Your task to perform on an android device: Search for hotels in Sydney Image 0: 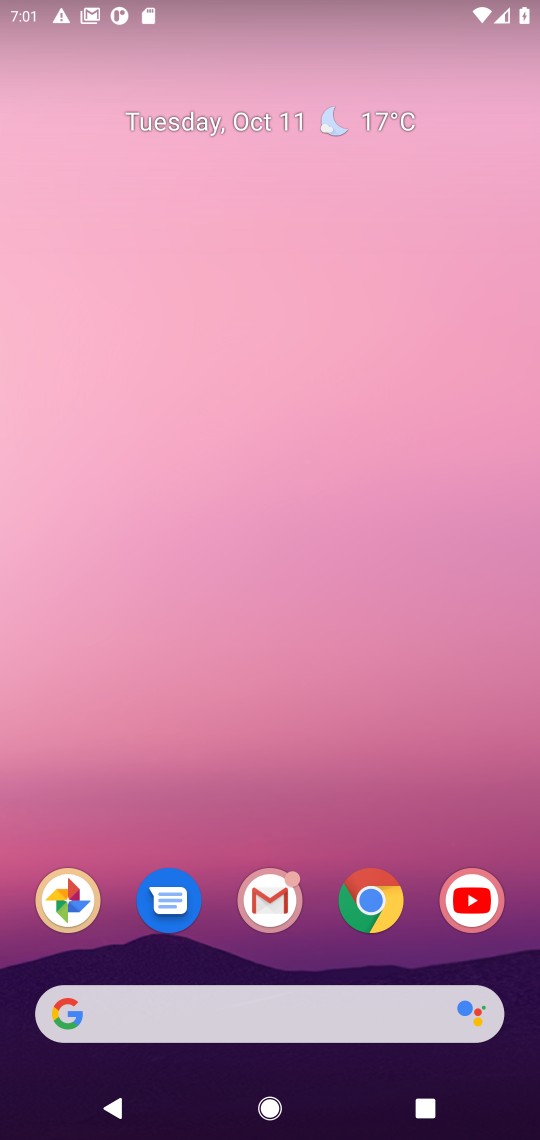
Step 0: click (362, 910)
Your task to perform on an android device: Search for hotels in Sydney Image 1: 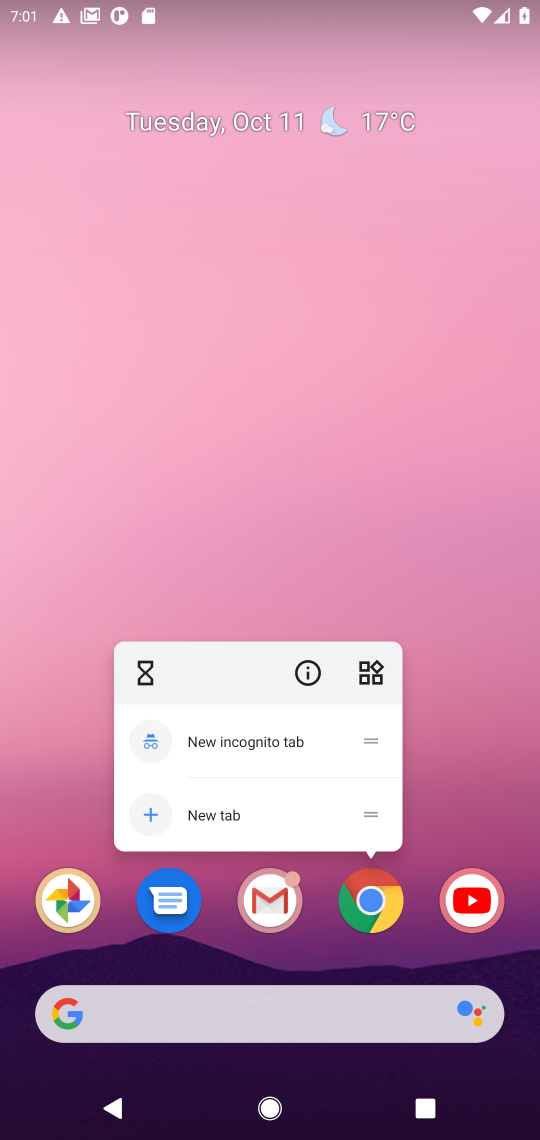
Step 1: click (374, 894)
Your task to perform on an android device: Search for hotels in Sydney Image 2: 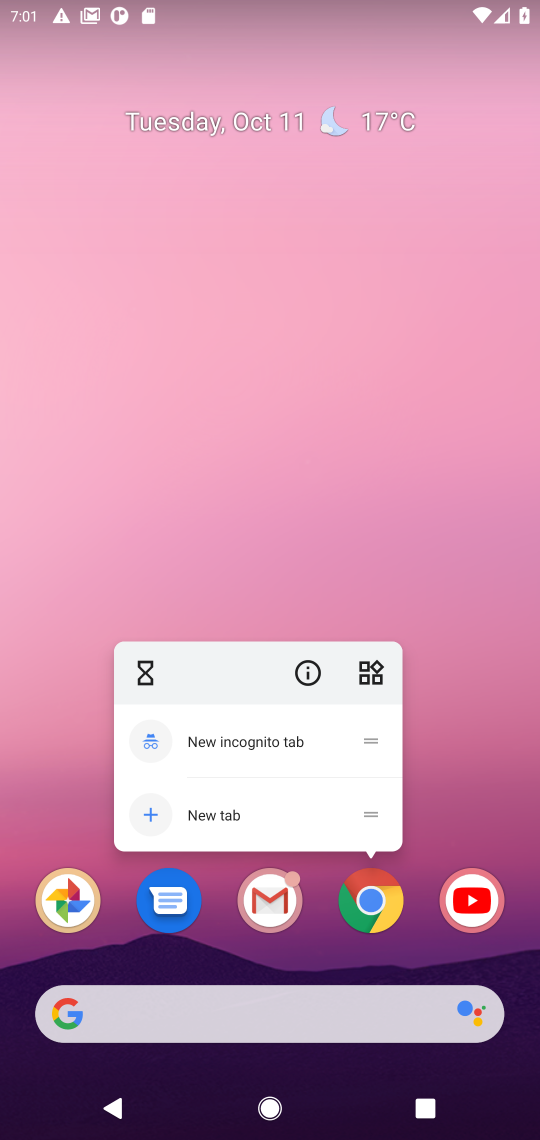
Step 2: click (370, 905)
Your task to perform on an android device: Search for hotels in Sydney Image 3: 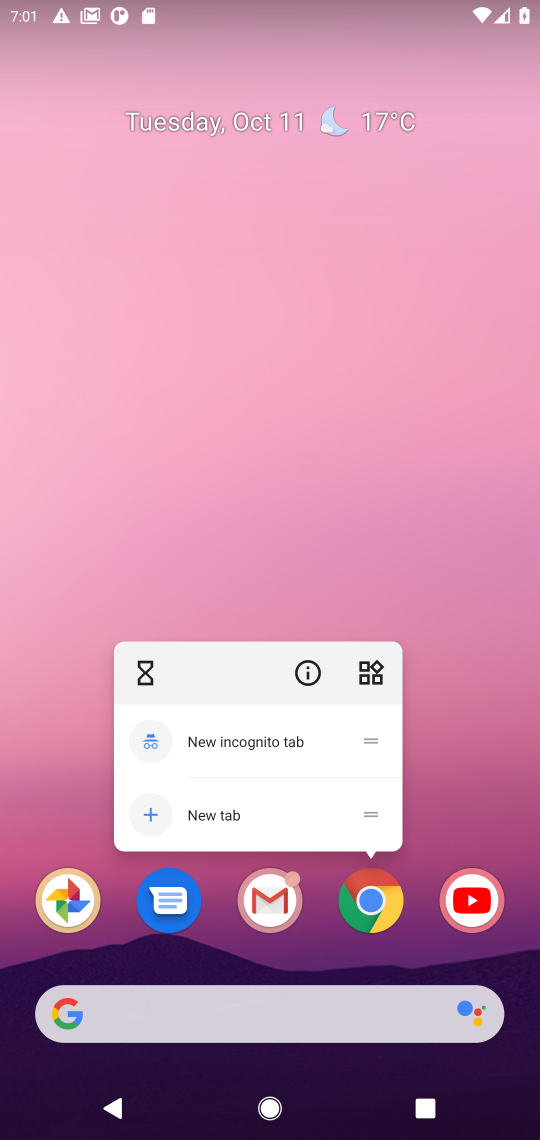
Step 3: click (370, 908)
Your task to perform on an android device: Search for hotels in Sydney Image 4: 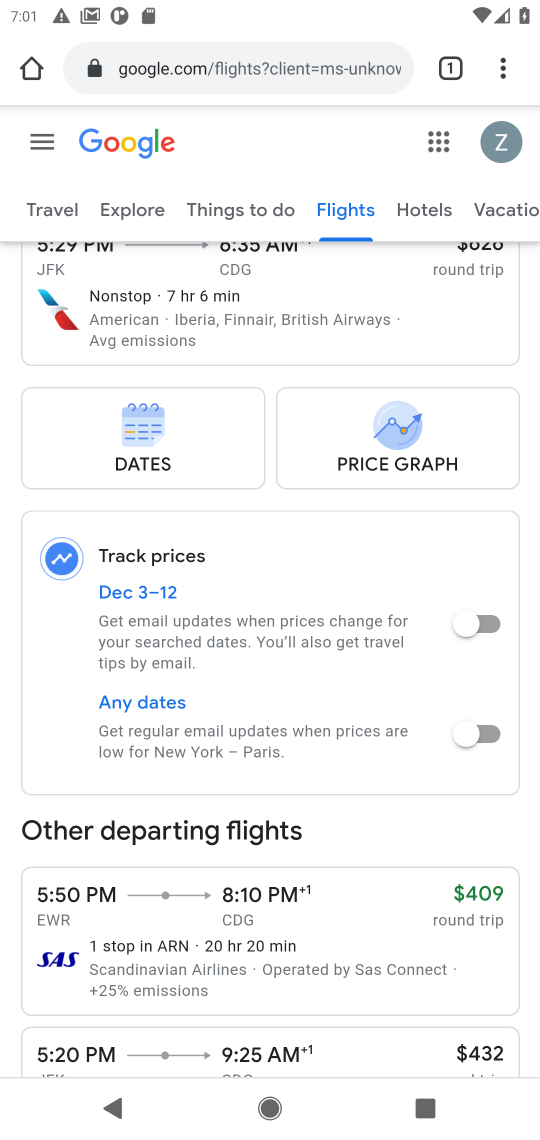
Step 4: click (257, 63)
Your task to perform on an android device: Search for hotels in Sydney Image 5: 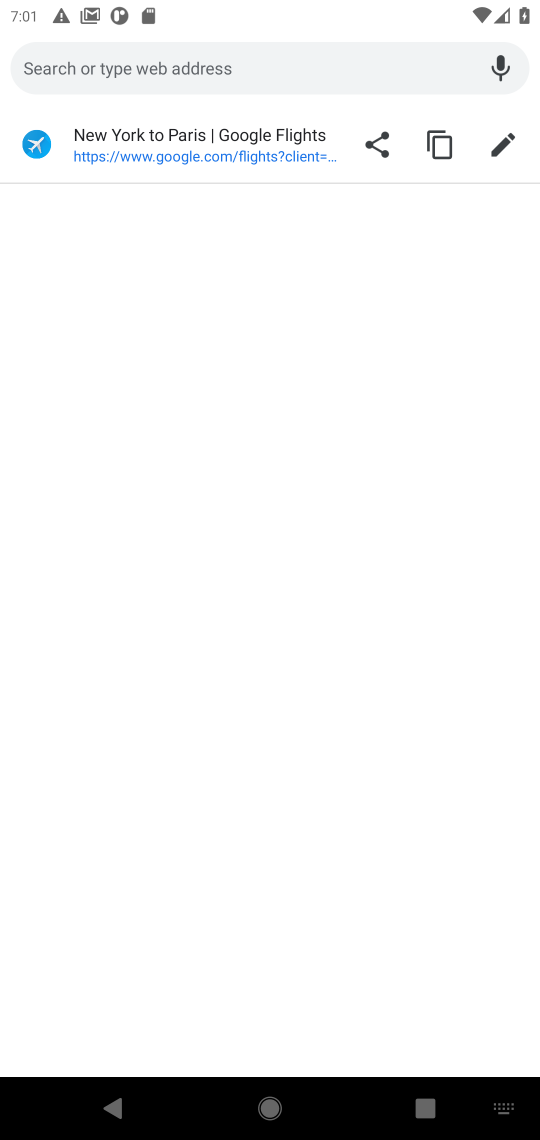
Step 5: type "hotels in Sydney"
Your task to perform on an android device: Search for hotels in Sydney Image 6: 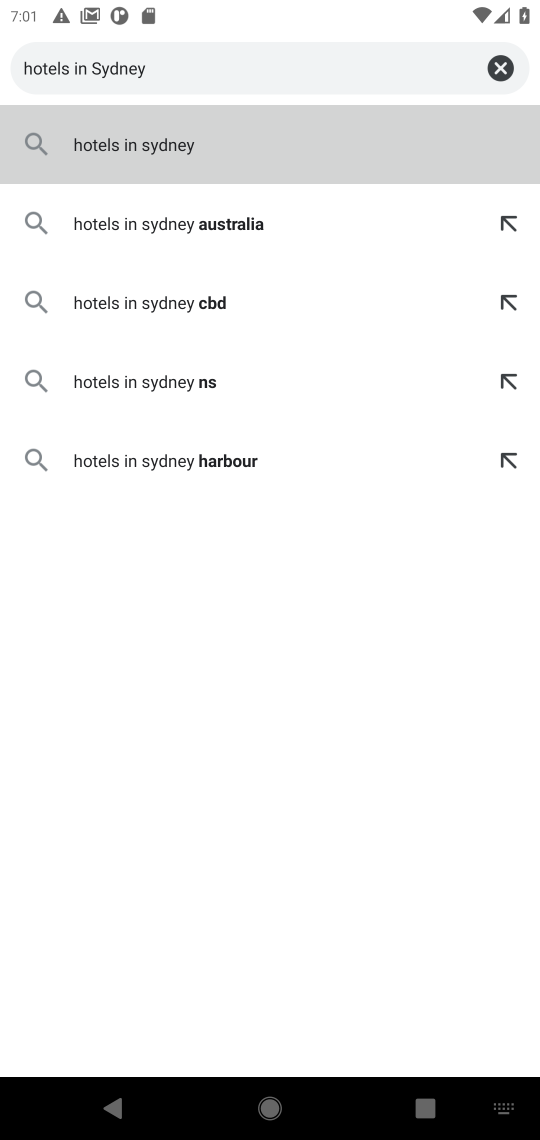
Step 6: press enter
Your task to perform on an android device: Search for hotels in Sydney Image 7: 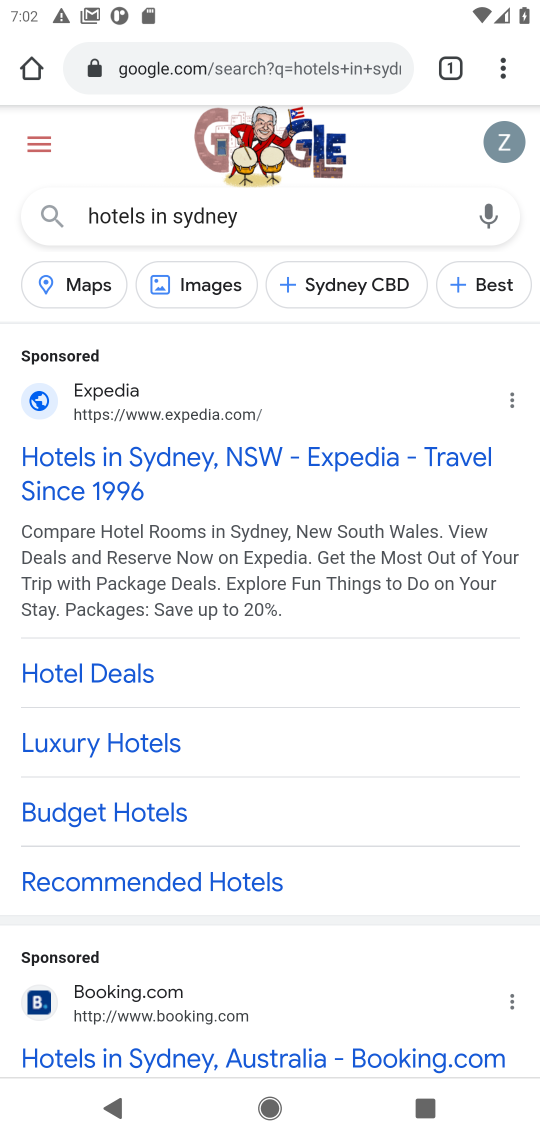
Step 7: drag from (284, 870) to (271, 52)
Your task to perform on an android device: Search for hotels in Sydney Image 8: 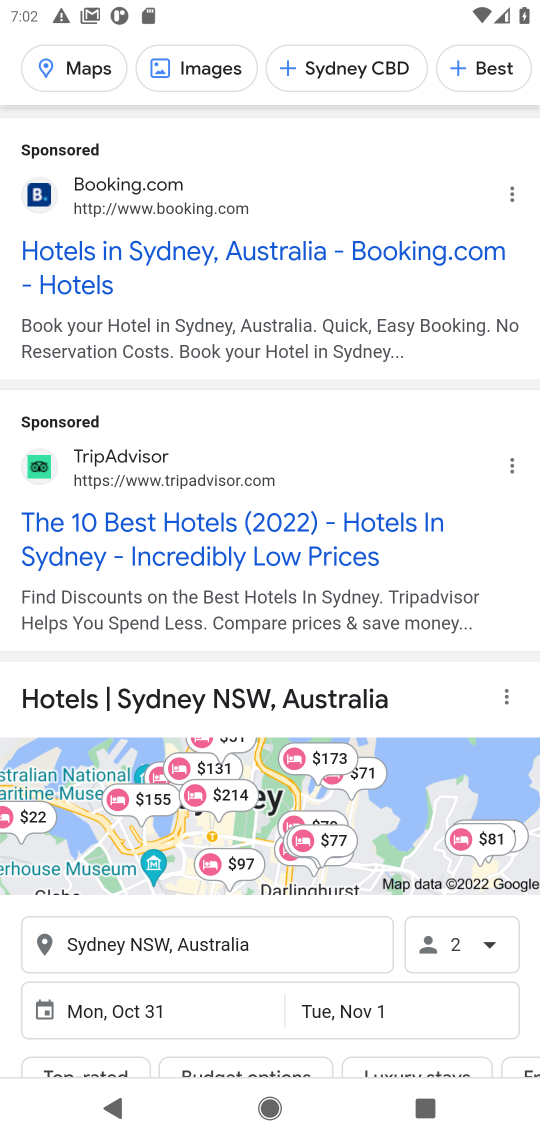
Step 8: drag from (215, 887) to (325, 26)
Your task to perform on an android device: Search for hotels in Sydney Image 9: 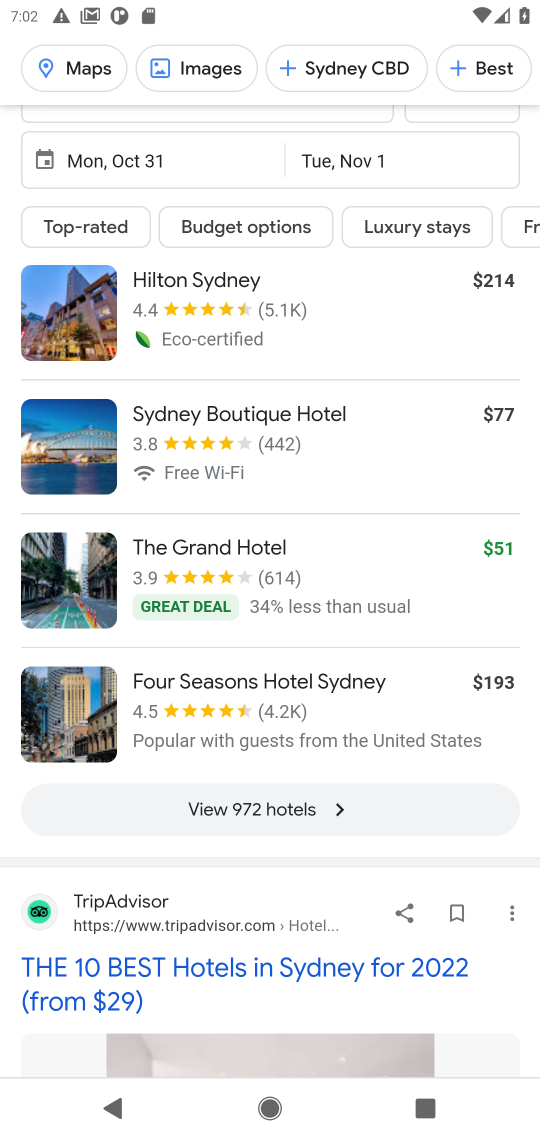
Step 9: click (252, 800)
Your task to perform on an android device: Search for hotels in Sydney Image 10: 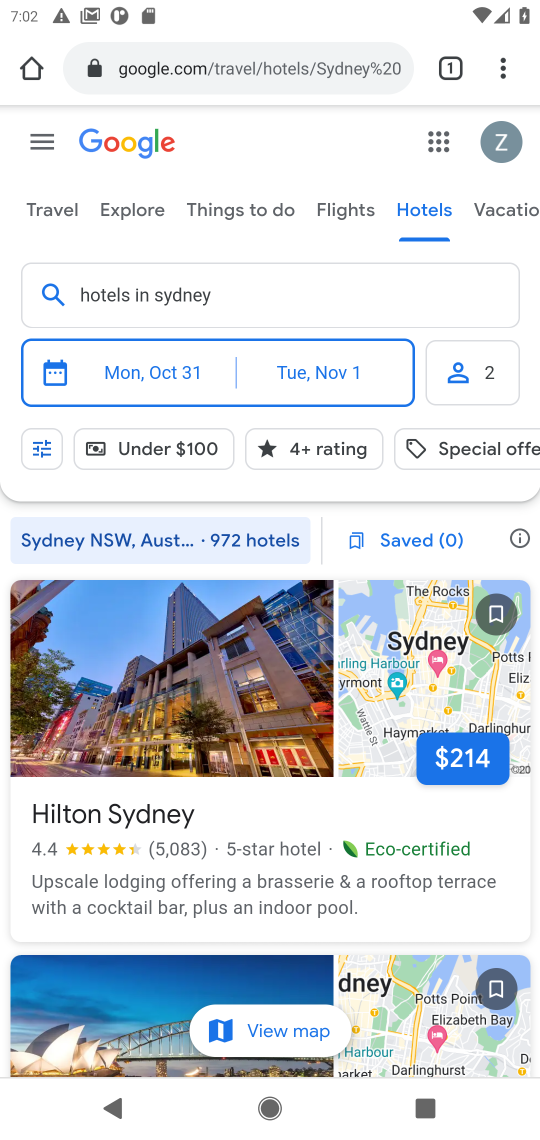
Step 10: task complete